Your task to perform on an android device: check google app version Image 0: 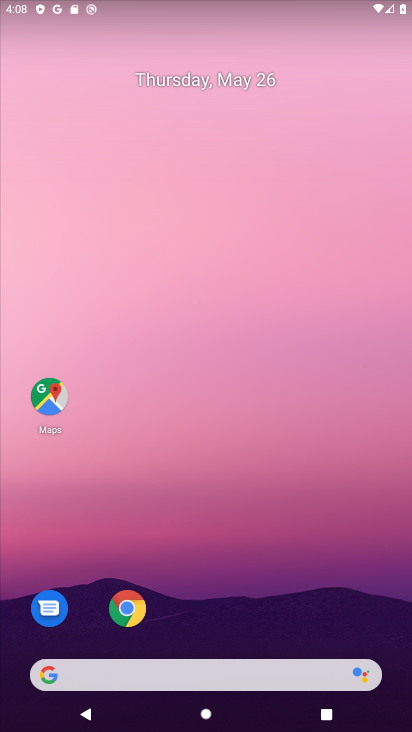
Step 0: drag from (255, 695) to (249, 105)
Your task to perform on an android device: check google app version Image 1: 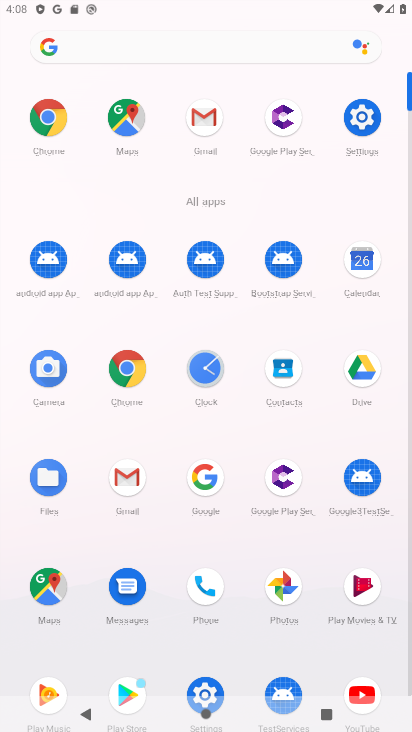
Step 1: click (51, 51)
Your task to perform on an android device: check google app version Image 2: 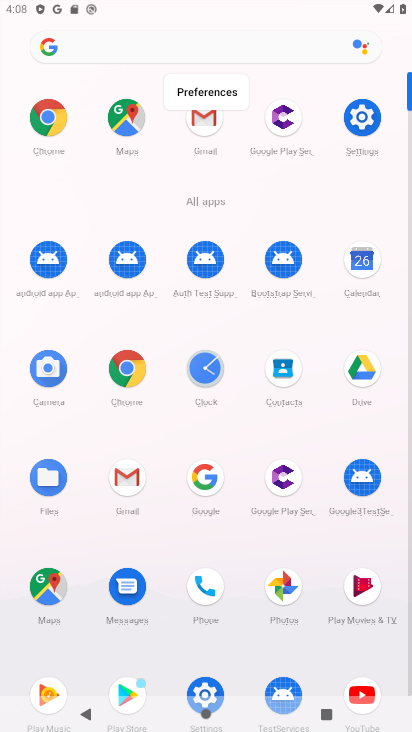
Step 2: click (60, 121)
Your task to perform on an android device: check google app version Image 3: 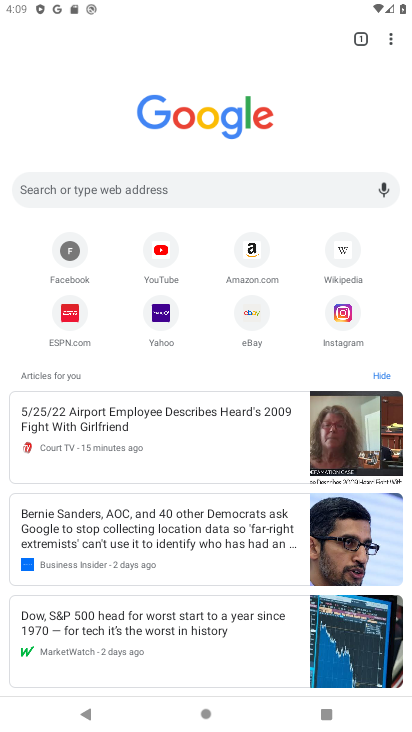
Step 3: click (380, 45)
Your task to perform on an android device: check google app version Image 4: 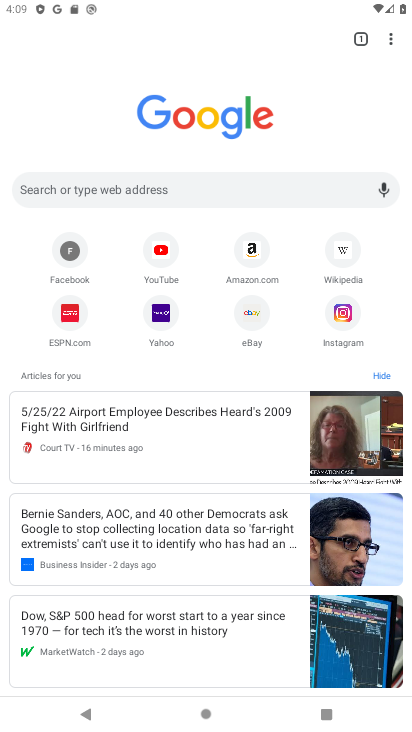
Step 4: click (390, 50)
Your task to perform on an android device: check google app version Image 5: 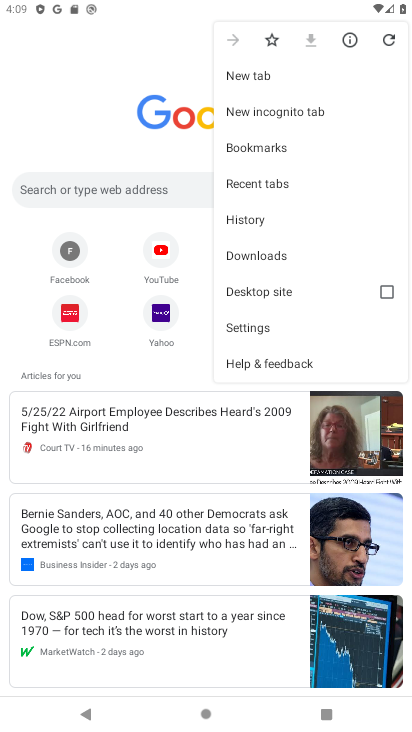
Step 5: click (259, 326)
Your task to perform on an android device: check google app version Image 6: 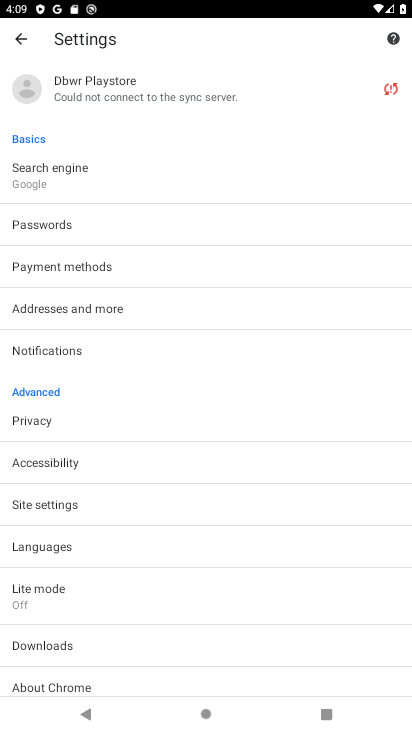
Step 6: drag from (59, 557) to (119, 352)
Your task to perform on an android device: check google app version Image 7: 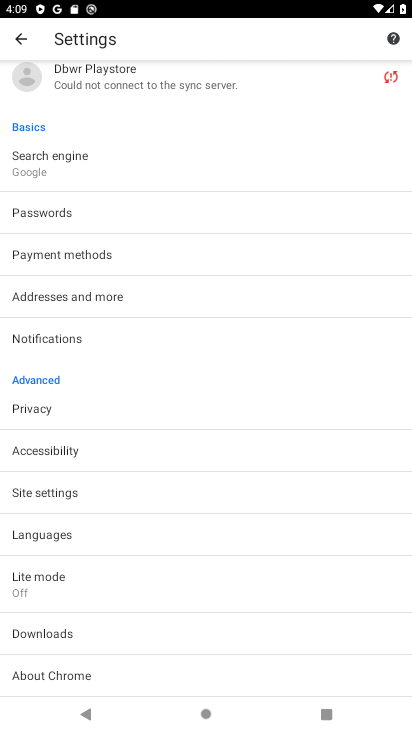
Step 7: click (76, 667)
Your task to perform on an android device: check google app version Image 8: 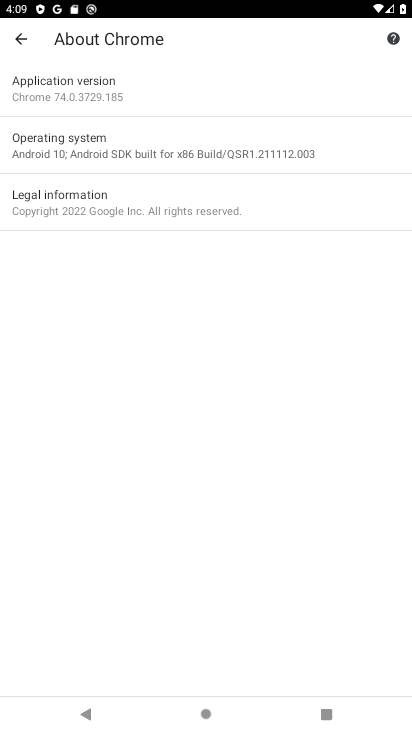
Step 8: click (58, 87)
Your task to perform on an android device: check google app version Image 9: 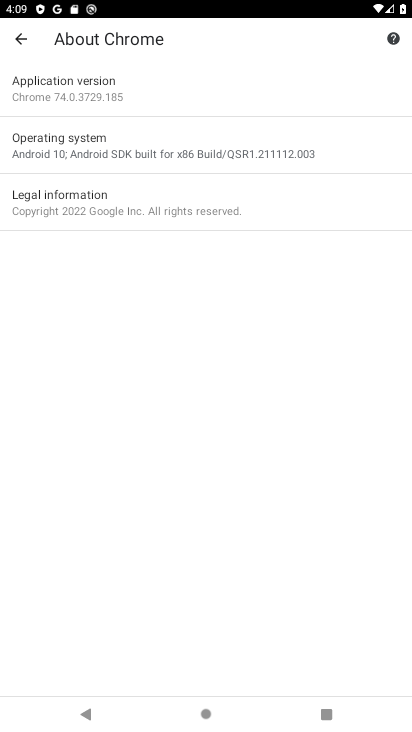
Step 9: click (102, 86)
Your task to perform on an android device: check google app version Image 10: 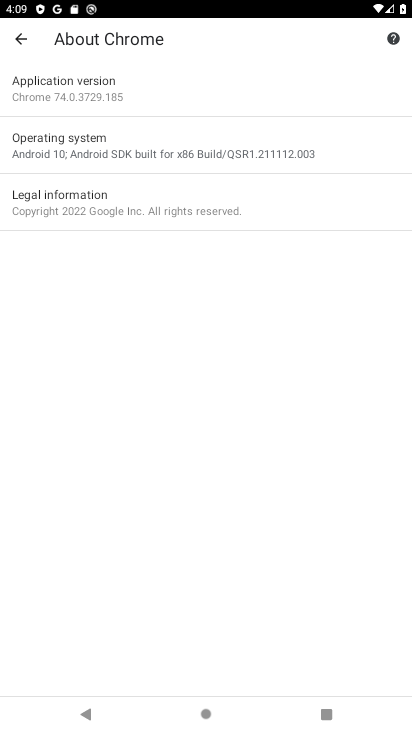
Step 10: task complete